Your task to perform on an android device: Show me popular videos on Youtube Image 0: 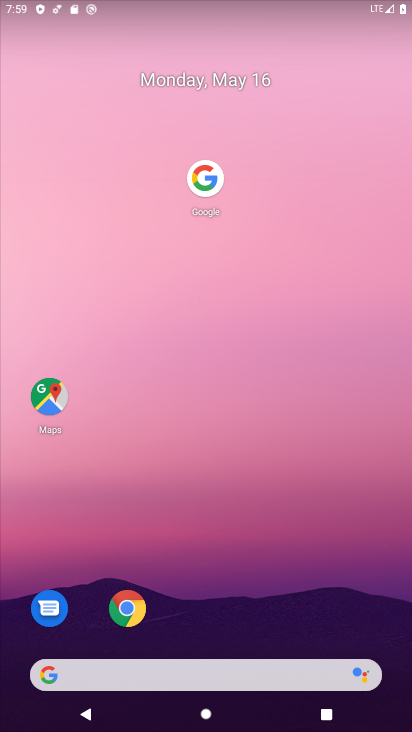
Step 0: drag from (257, 621) to (275, 181)
Your task to perform on an android device: Show me popular videos on Youtube Image 1: 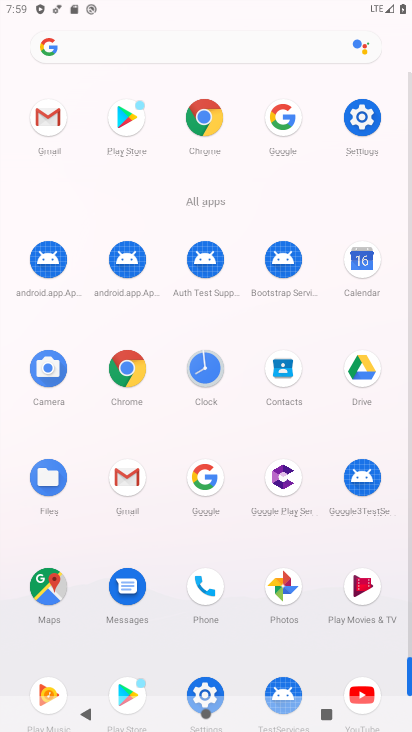
Step 1: drag from (237, 575) to (233, 340)
Your task to perform on an android device: Show me popular videos on Youtube Image 2: 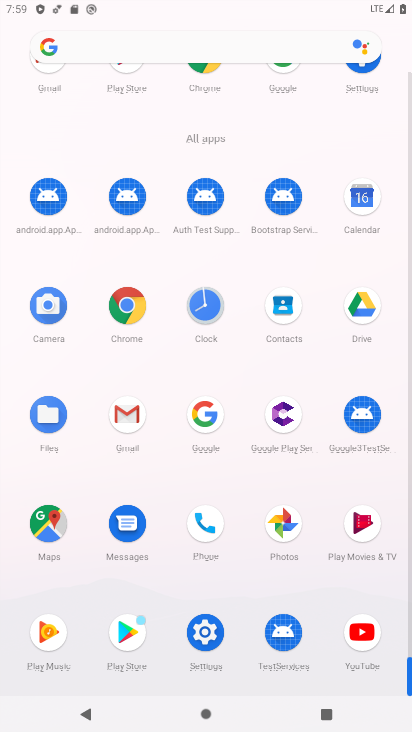
Step 2: click (363, 631)
Your task to perform on an android device: Show me popular videos on Youtube Image 3: 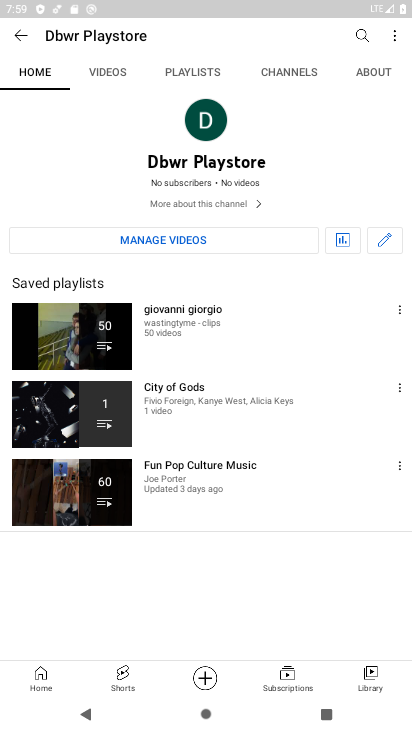
Step 3: press back button
Your task to perform on an android device: Show me popular videos on Youtube Image 4: 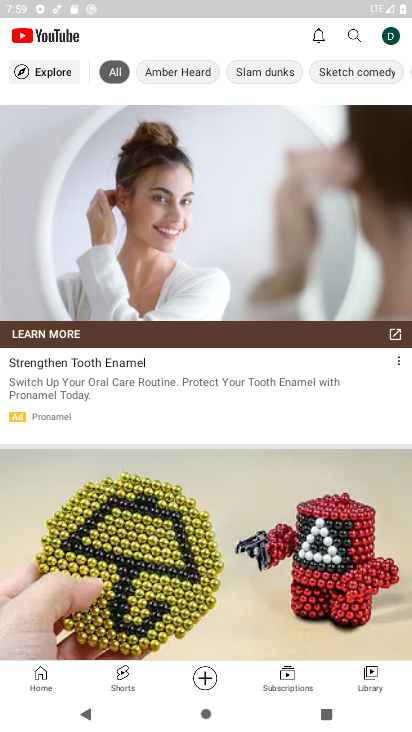
Step 4: click (349, 31)
Your task to perform on an android device: Show me popular videos on Youtube Image 5: 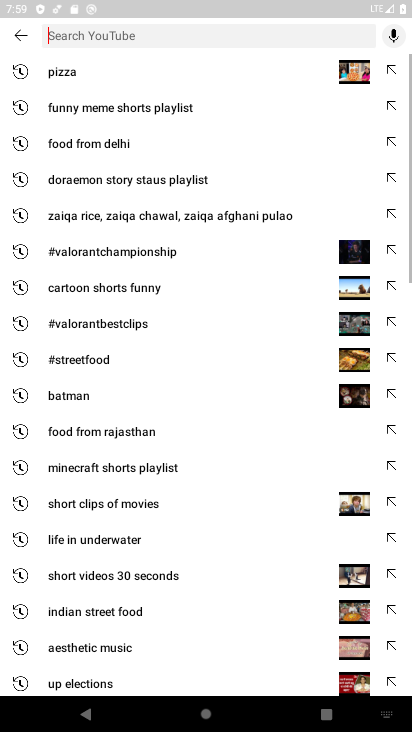
Step 5: click (156, 37)
Your task to perform on an android device: Show me popular videos on Youtube Image 6: 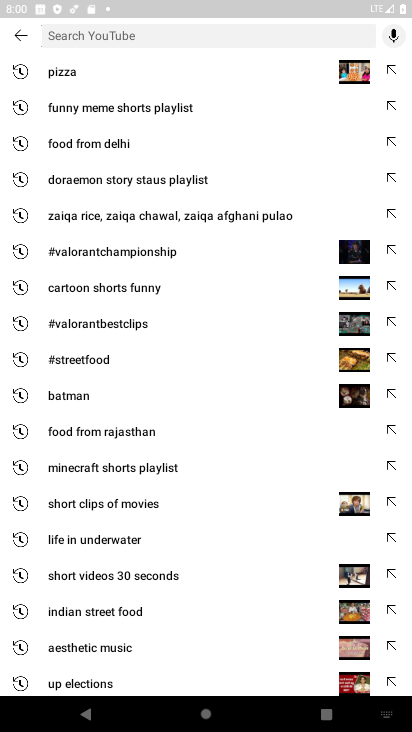
Step 6: type "popular videos"
Your task to perform on an android device: Show me popular videos on Youtube Image 7: 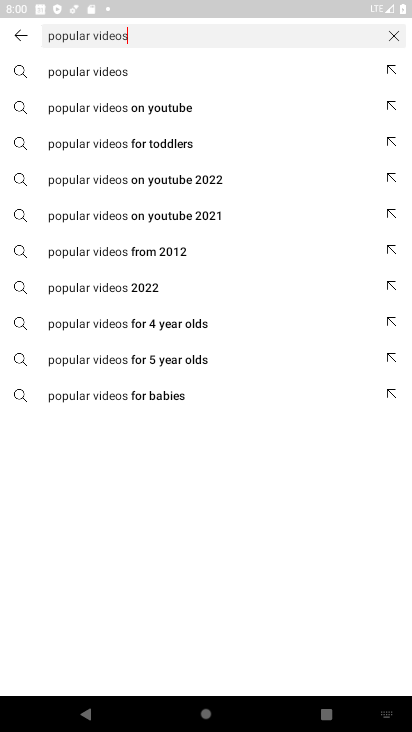
Step 7: click (155, 109)
Your task to perform on an android device: Show me popular videos on Youtube Image 8: 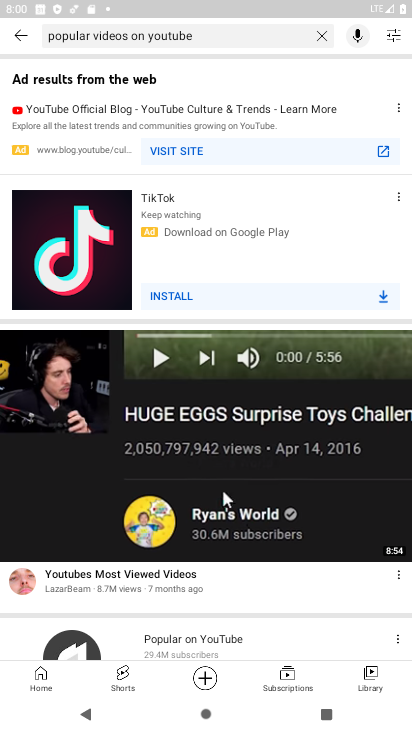
Step 8: task complete